Your task to perform on an android device: open a bookmark in the chrome app Image 0: 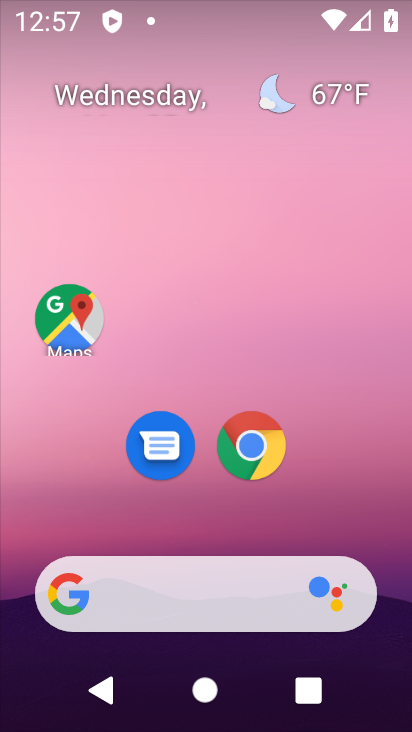
Step 0: click (255, 454)
Your task to perform on an android device: open a bookmark in the chrome app Image 1: 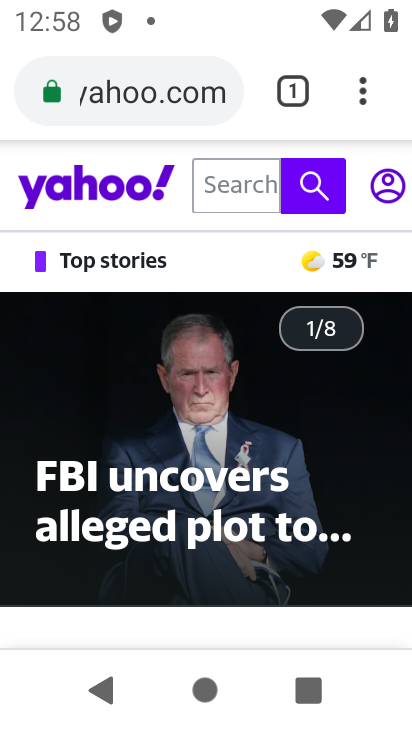
Step 1: click (365, 108)
Your task to perform on an android device: open a bookmark in the chrome app Image 2: 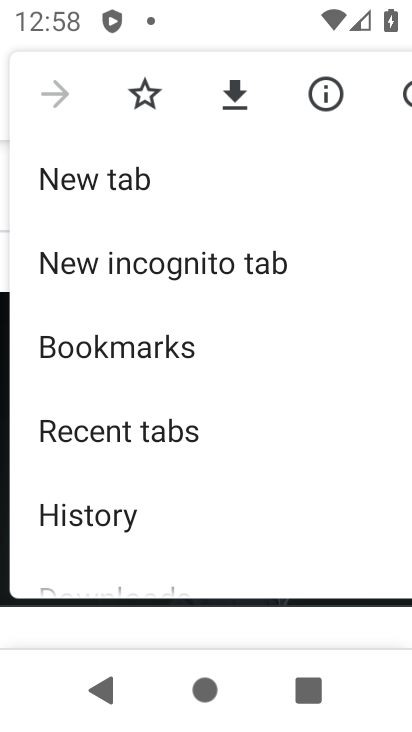
Step 2: click (215, 362)
Your task to perform on an android device: open a bookmark in the chrome app Image 3: 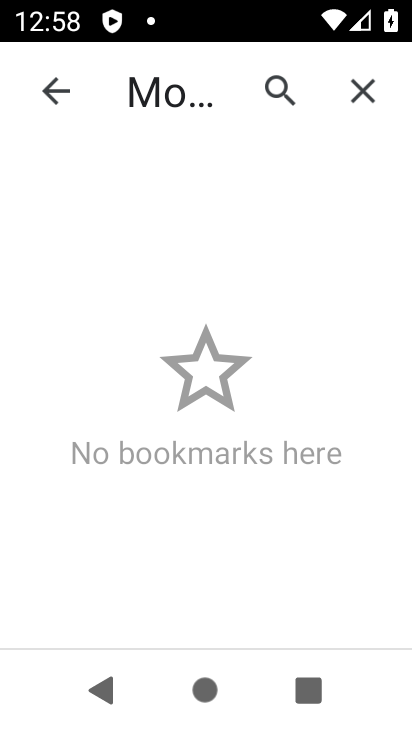
Step 3: task complete